Your task to perform on an android device: Is it going to rain today? Image 0: 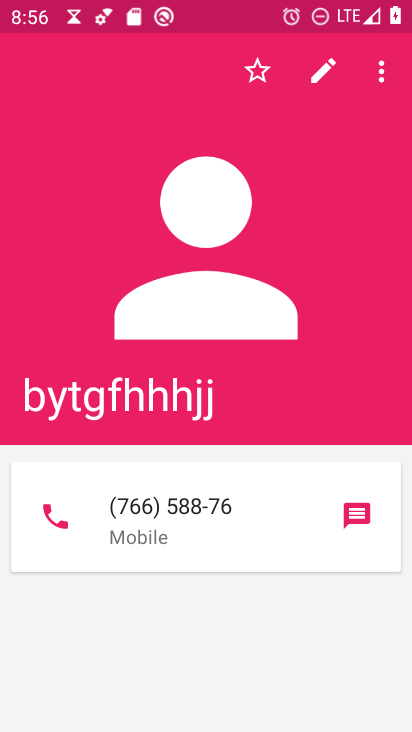
Step 0: press home button
Your task to perform on an android device: Is it going to rain today? Image 1: 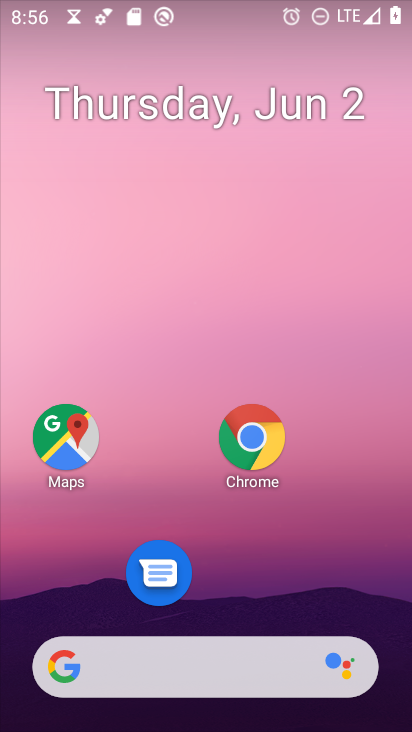
Step 1: click (67, 665)
Your task to perform on an android device: Is it going to rain today? Image 2: 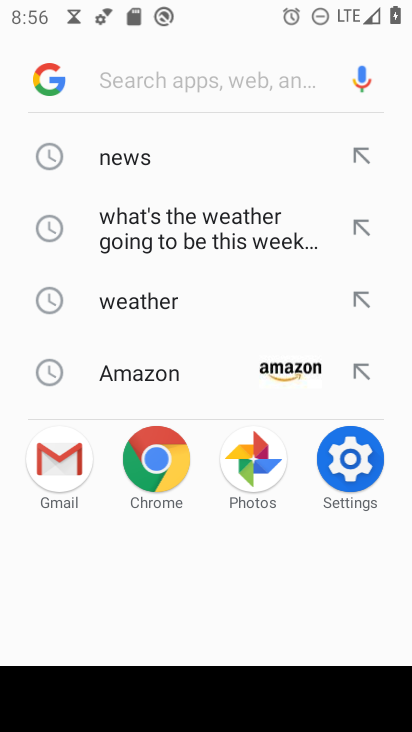
Step 2: click (118, 312)
Your task to perform on an android device: Is it going to rain today? Image 3: 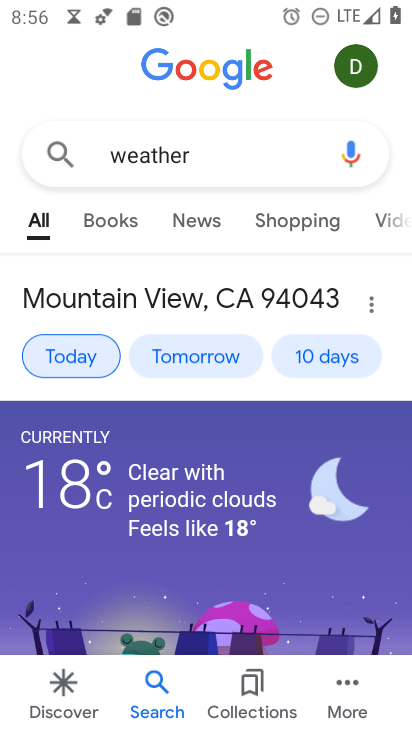
Step 3: task complete